Your task to perform on an android device: star an email in the gmail app Image 0: 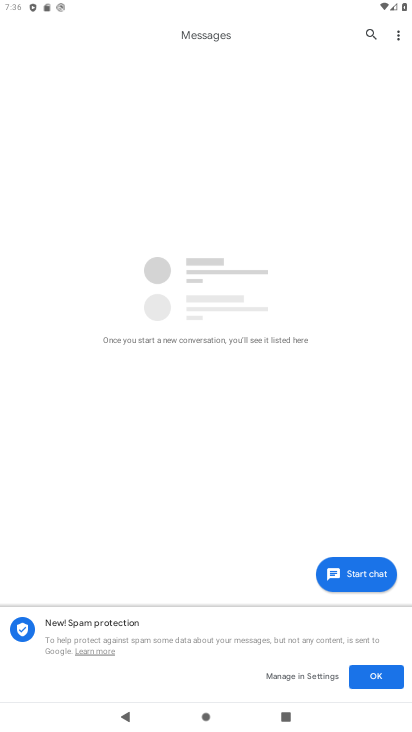
Step 0: press home button
Your task to perform on an android device: star an email in the gmail app Image 1: 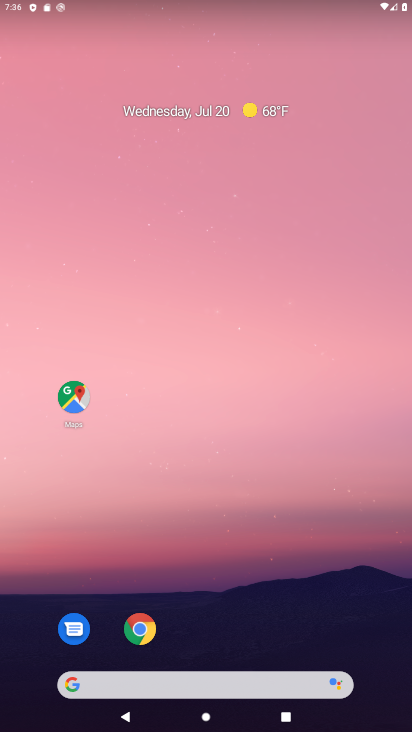
Step 1: drag from (360, 607) to (339, 108)
Your task to perform on an android device: star an email in the gmail app Image 2: 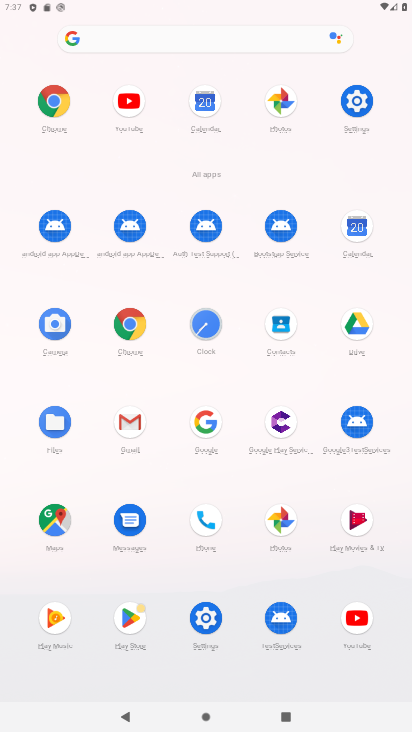
Step 2: click (128, 422)
Your task to perform on an android device: star an email in the gmail app Image 3: 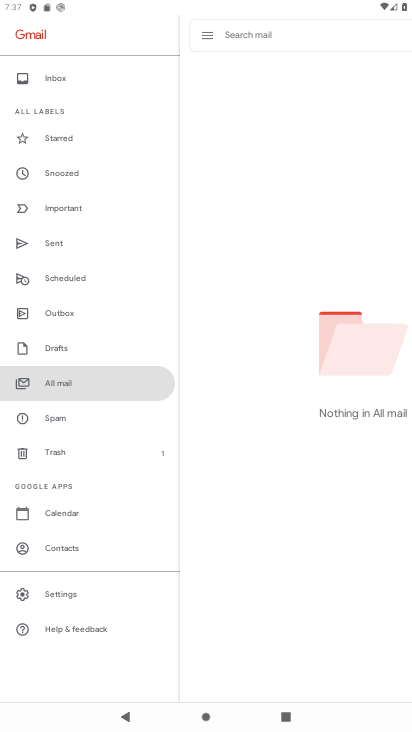
Step 3: task complete